Your task to perform on an android device: Show me recent news Image 0: 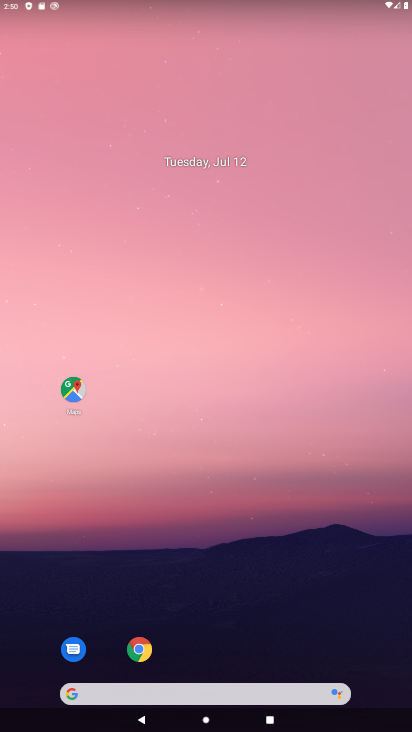
Step 0: drag from (4, 268) to (388, 248)
Your task to perform on an android device: Show me recent news Image 1: 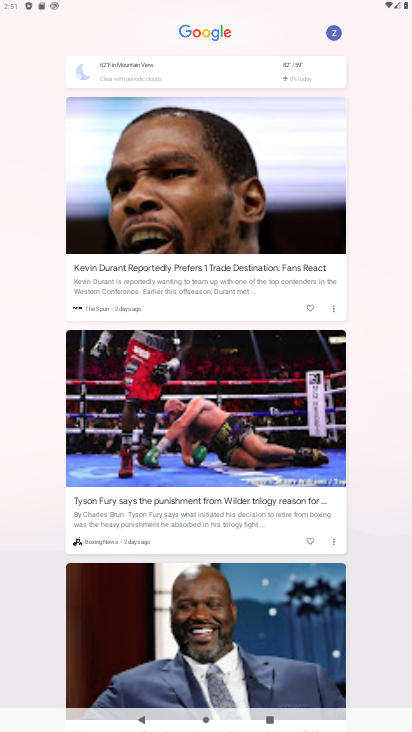
Step 1: task complete